Your task to perform on an android device: Clear all items from cart on ebay.com. Add razer blade to the cart on ebay.com Image 0: 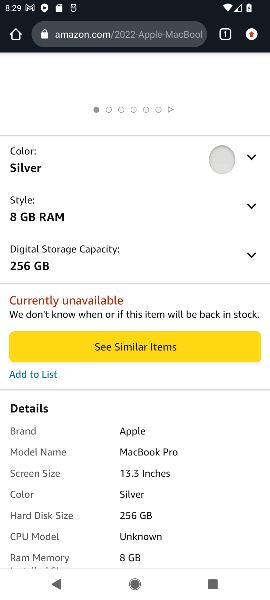
Step 0: press home button
Your task to perform on an android device: Clear all items from cart on ebay.com. Add razer blade to the cart on ebay.com Image 1: 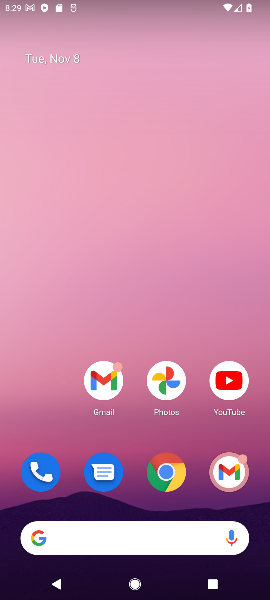
Step 1: click (165, 471)
Your task to perform on an android device: Clear all items from cart on ebay.com. Add razer blade to the cart on ebay.com Image 2: 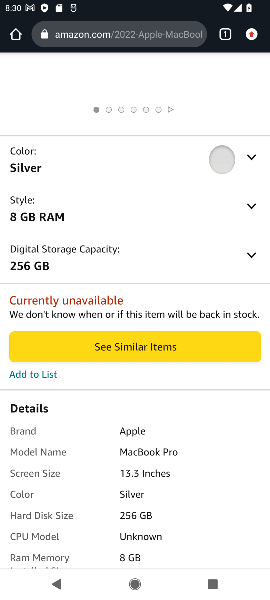
Step 2: click (139, 33)
Your task to perform on an android device: Clear all items from cart on ebay.com. Add razer blade to the cart on ebay.com Image 3: 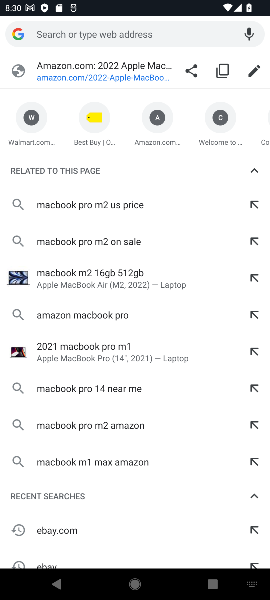
Step 3: type "ebay.com"
Your task to perform on an android device: Clear all items from cart on ebay.com. Add razer blade to the cart on ebay.com Image 4: 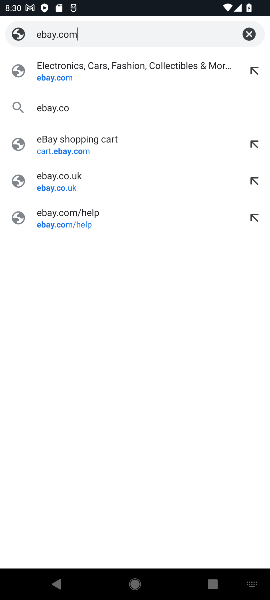
Step 4: press enter
Your task to perform on an android device: Clear all items from cart on ebay.com. Add razer blade to the cart on ebay.com Image 5: 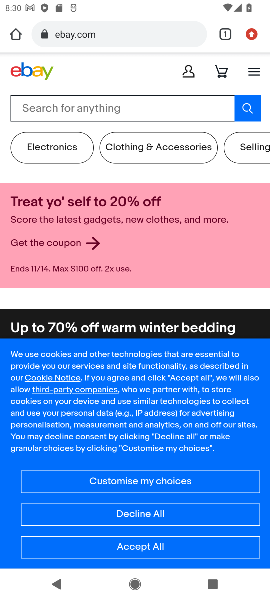
Step 5: click (143, 548)
Your task to perform on an android device: Clear all items from cart on ebay.com. Add razer blade to the cart on ebay.com Image 6: 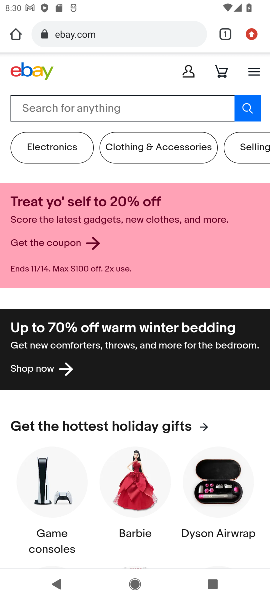
Step 6: click (71, 108)
Your task to perform on an android device: Clear all items from cart on ebay.com. Add razer blade to the cart on ebay.com Image 7: 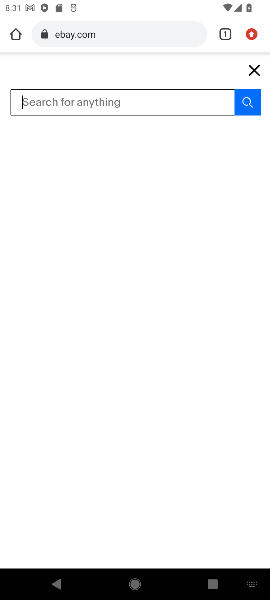
Step 7: type " razer blade "
Your task to perform on an android device: Clear all items from cart on ebay.com. Add razer blade to the cart on ebay.com Image 8: 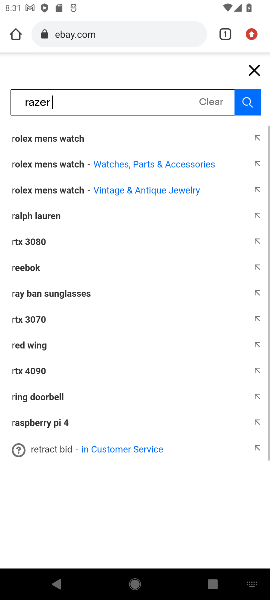
Step 8: press enter
Your task to perform on an android device: Clear all items from cart on ebay.com. Add razer blade to the cart on ebay.com Image 9: 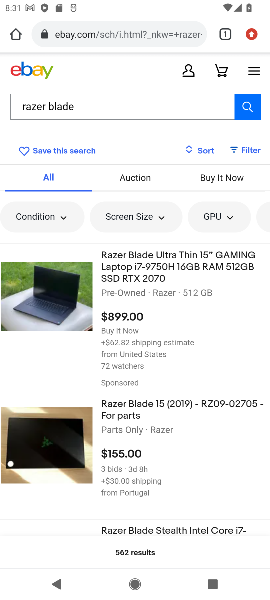
Step 9: click (143, 265)
Your task to perform on an android device: Clear all items from cart on ebay.com. Add razer blade to the cart on ebay.com Image 10: 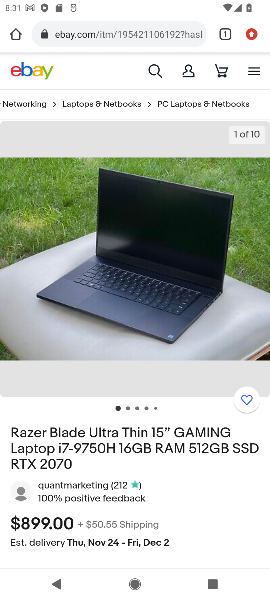
Step 10: drag from (121, 509) to (239, 86)
Your task to perform on an android device: Clear all items from cart on ebay.com. Add razer blade to the cart on ebay.com Image 11: 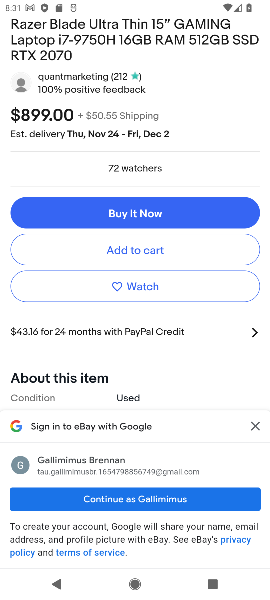
Step 11: click (131, 254)
Your task to perform on an android device: Clear all items from cart on ebay.com. Add razer blade to the cart on ebay.com Image 12: 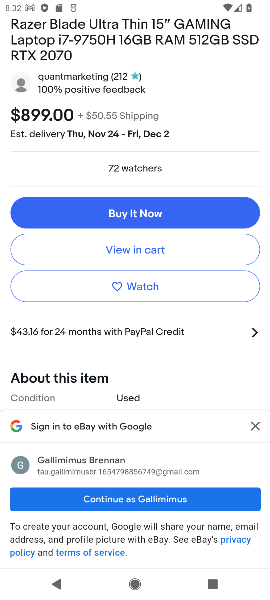
Step 12: click (115, 249)
Your task to perform on an android device: Clear all items from cart on ebay.com. Add razer blade to the cart on ebay.com Image 13: 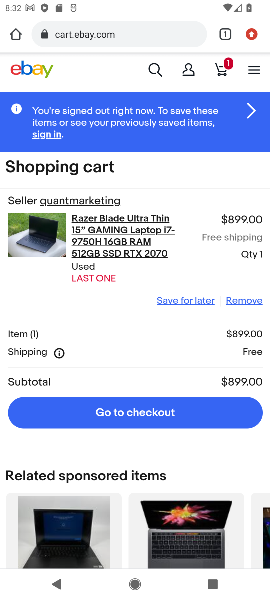
Step 13: task complete